Your task to perform on an android device: Go to eBay Image 0: 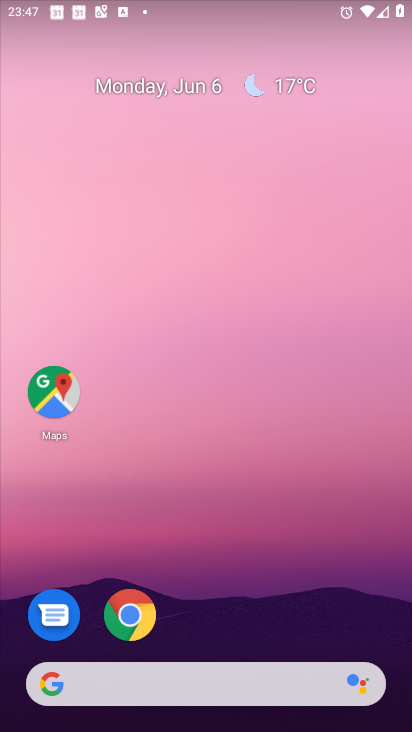
Step 0: click (130, 616)
Your task to perform on an android device: Go to eBay Image 1: 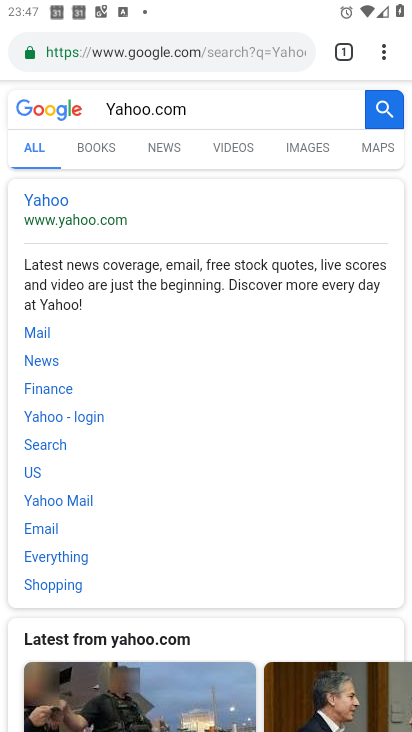
Step 1: click (310, 45)
Your task to perform on an android device: Go to eBay Image 2: 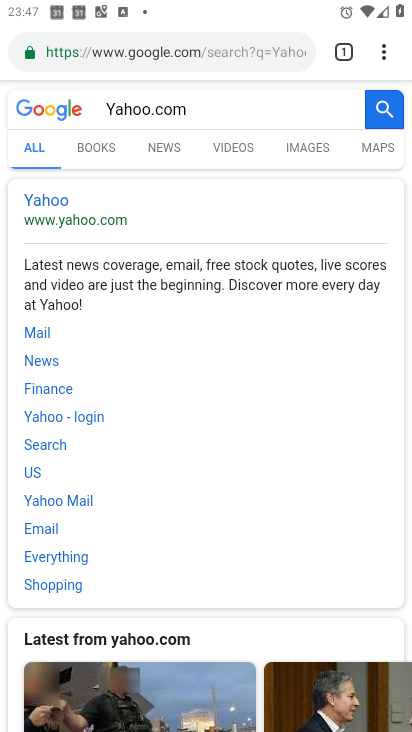
Step 2: click (307, 42)
Your task to perform on an android device: Go to eBay Image 3: 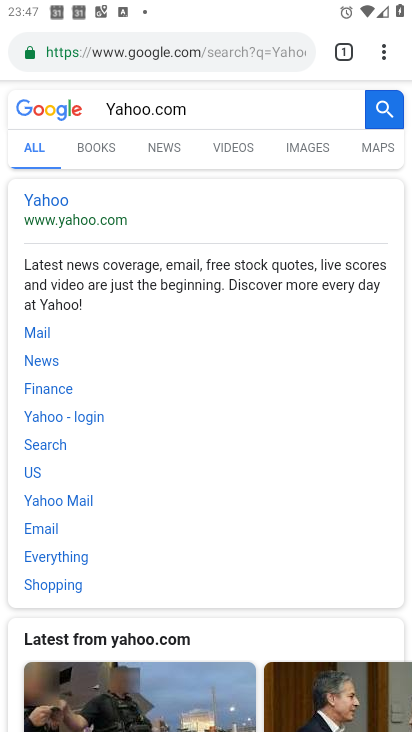
Step 3: click (302, 49)
Your task to perform on an android device: Go to eBay Image 4: 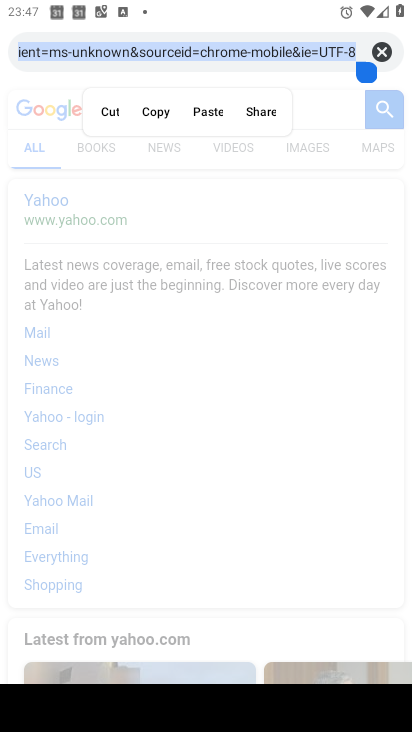
Step 4: click (374, 49)
Your task to perform on an android device: Go to eBay Image 5: 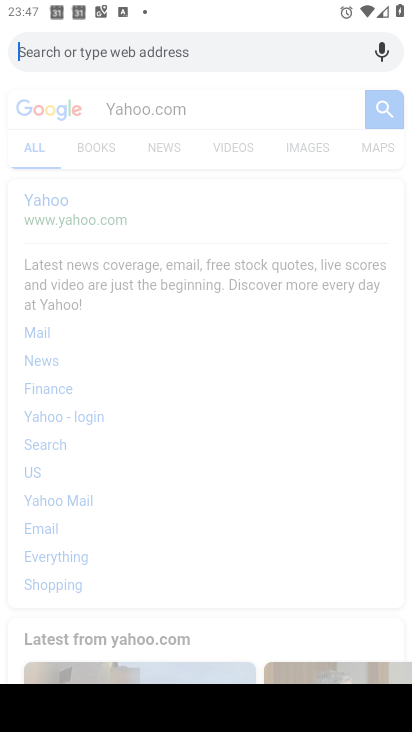
Step 5: type "eBay"
Your task to perform on an android device: Go to eBay Image 6: 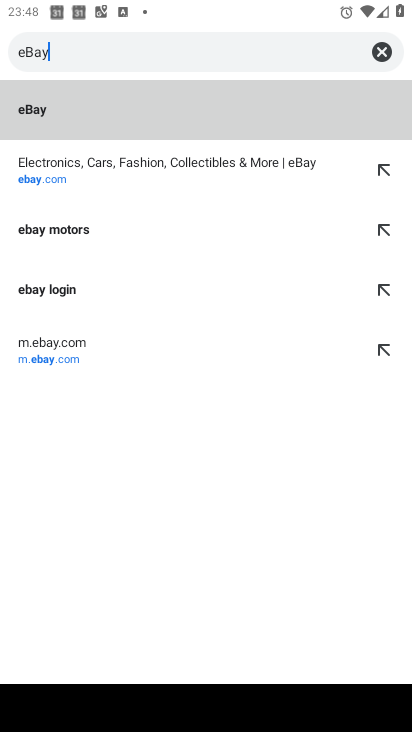
Step 6: click (26, 113)
Your task to perform on an android device: Go to eBay Image 7: 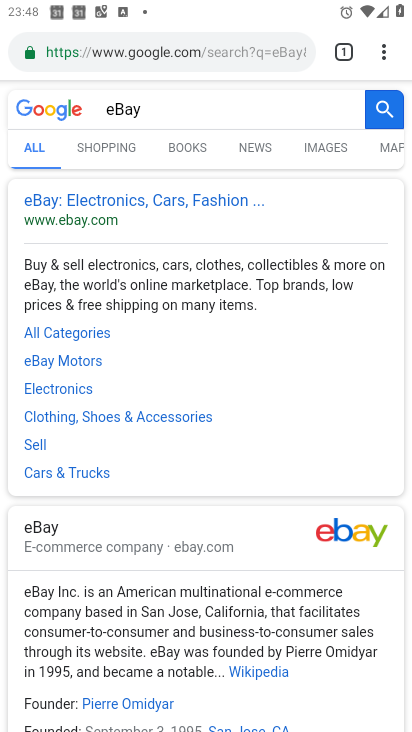
Step 7: task complete